Your task to perform on an android device: turn notification dots off Image 0: 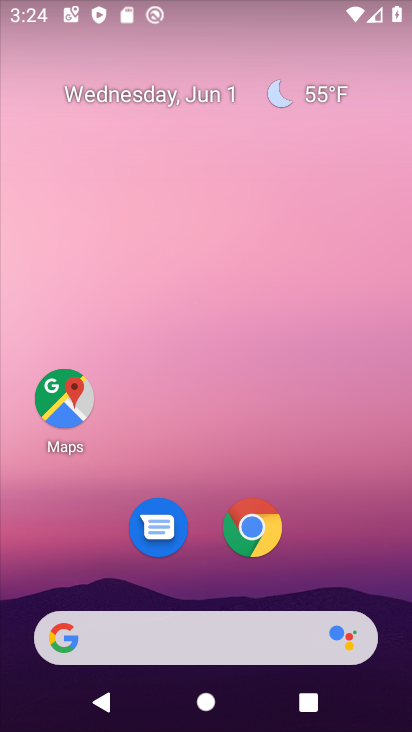
Step 0: press home button
Your task to perform on an android device: turn notification dots off Image 1: 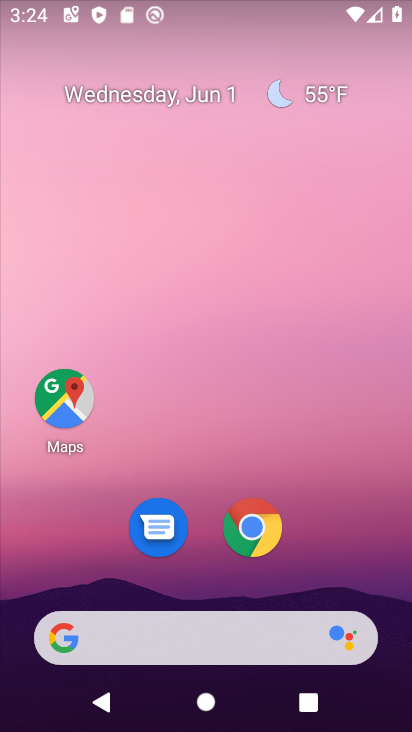
Step 1: drag from (298, 580) to (321, 40)
Your task to perform on an android device: turn notification dots off Image 2: 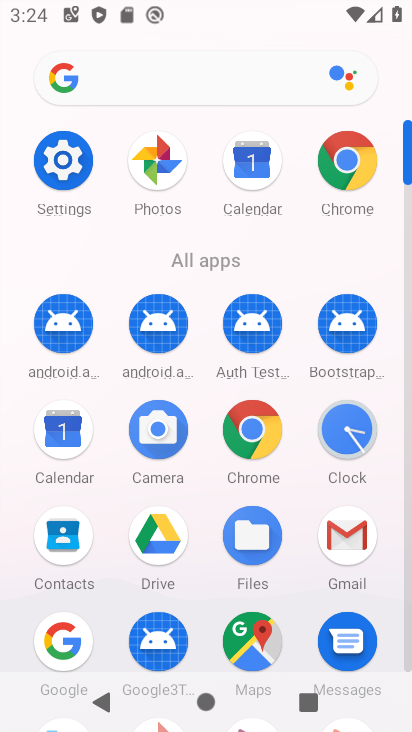
Step 2: click (62, 165)
Your task to perform on an android device: turn notification dots off Image 3: 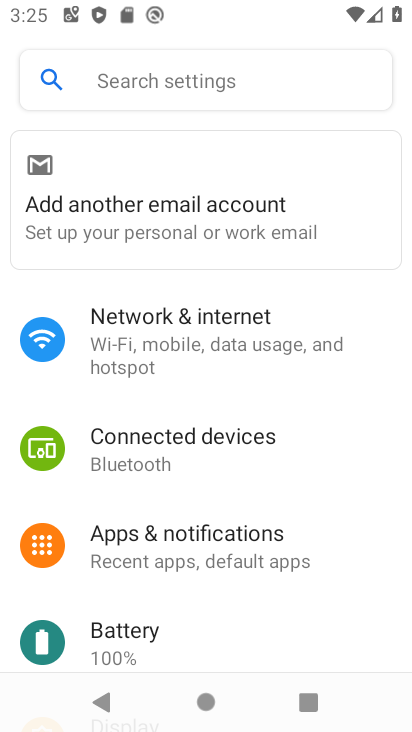
Step 3: drag from (154, 587) to (112, 318)
Your task to perform on an android device: turn notification dots off Image 4: 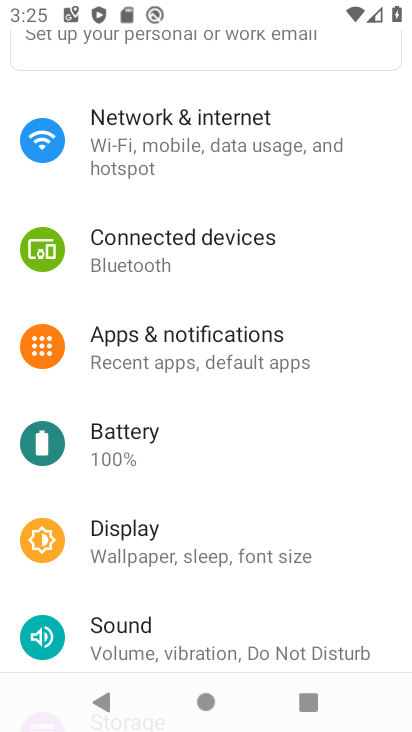
Step 4: click (122, 345)
Your task to perform on an android device: turn notification dots off Image 5: 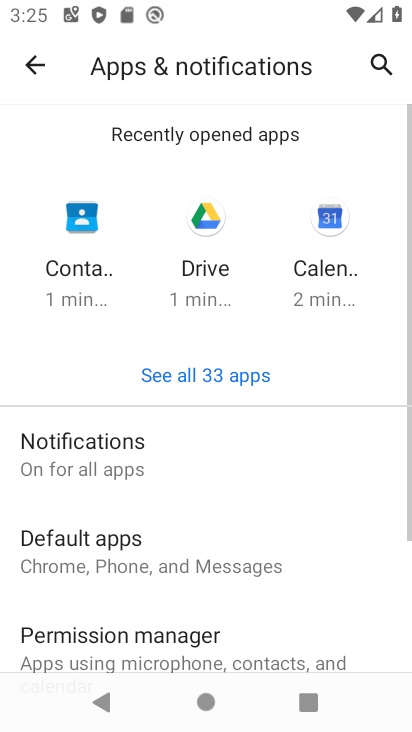
Step 5: click (106, 441)
Your task to perform on an android device: turn notification dots off Image 6: 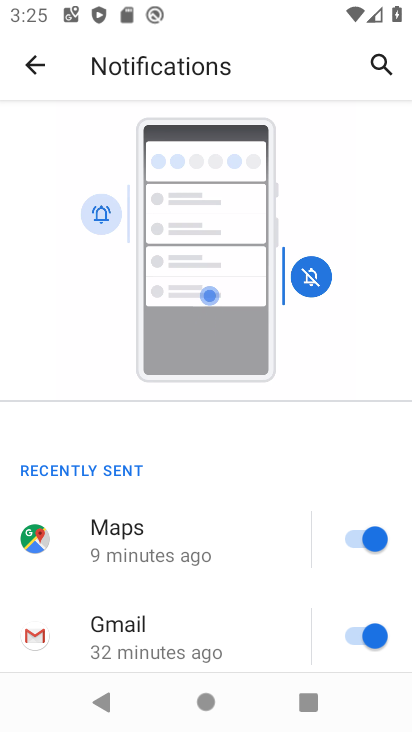
Step 6: drag from (176, 556) to (251, 171)
Your task to perform on an android device: turn notification dots off Image 7: 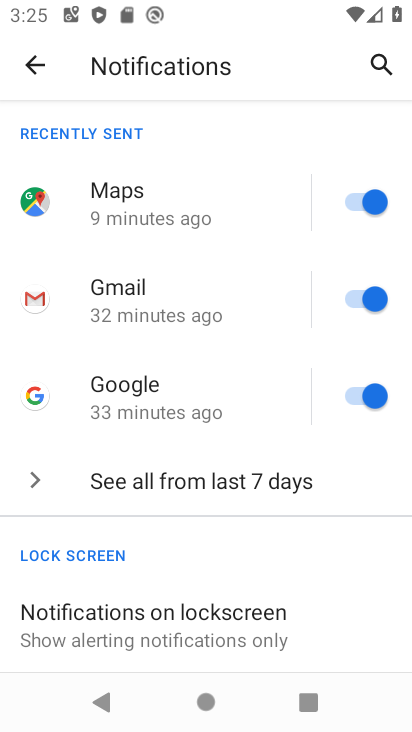
Step 7: drag from (173, 597) to (192, 482)
Your task to perform on an android device: turn notification dots off Image 8: 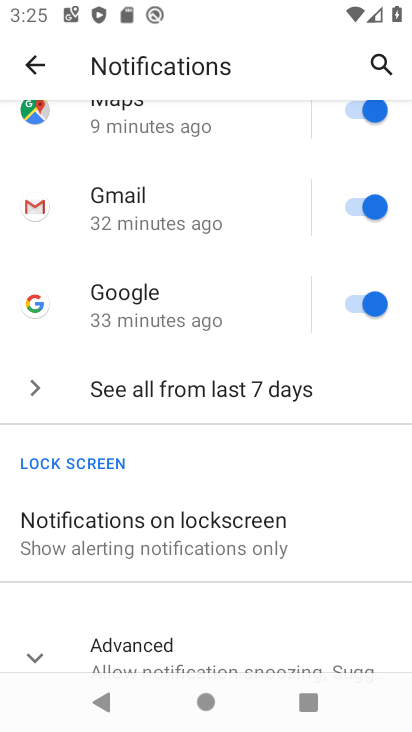
Step 8: click (167, 527)
Your task to perform on an android device: turn notification dots off Image 9: 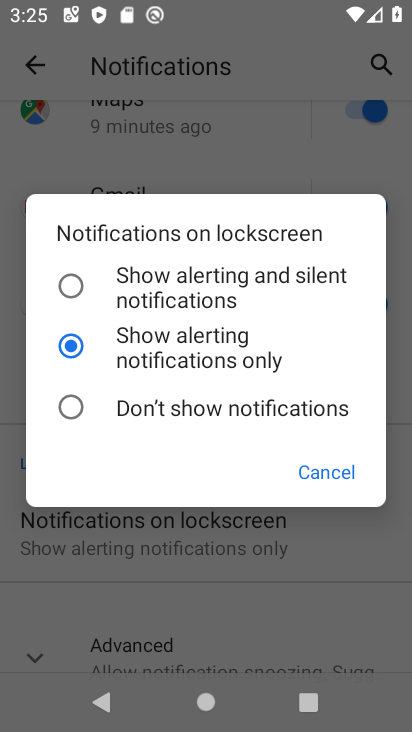
Step 9: click (184, 539)
Your task to perform on an android device: turn notification dots off Image 10: 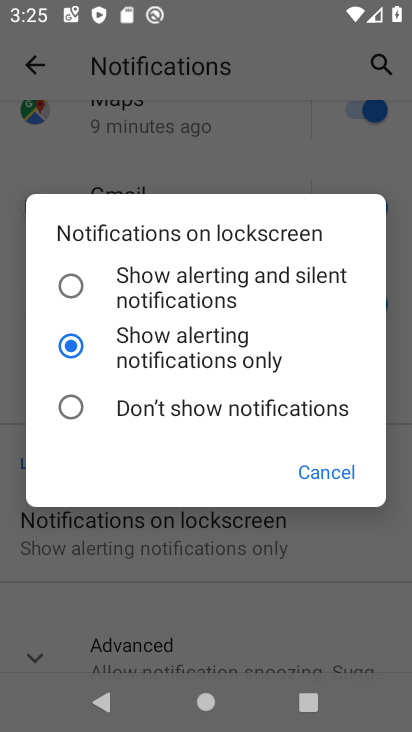
Step 10: click (189, 643)
Your task to perform on an android device: turn notification dots off Image 11: 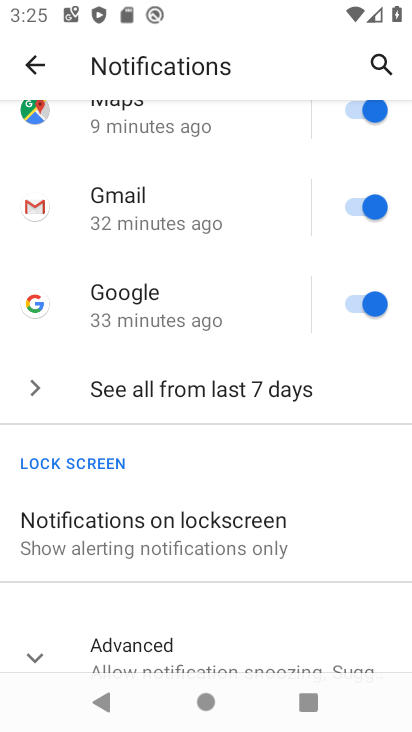
Step 11: drag from (270, 591) to (334, 330)
Your task to perform on an android device: turn notification dots off Image 12: 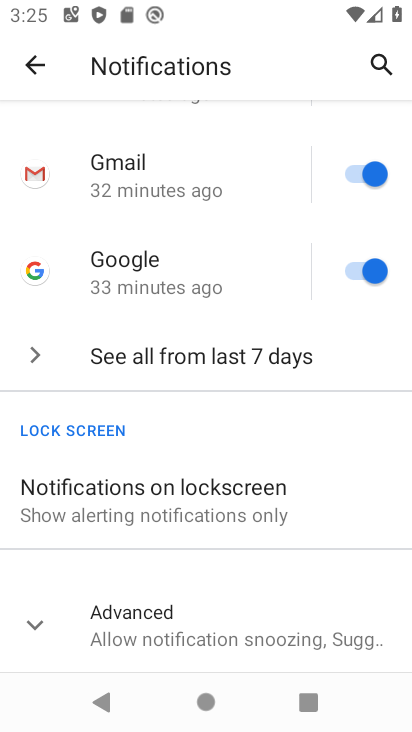
Step 12: click (229, 635)
Your task to perform on an android device: turn notification dots off Image 13: 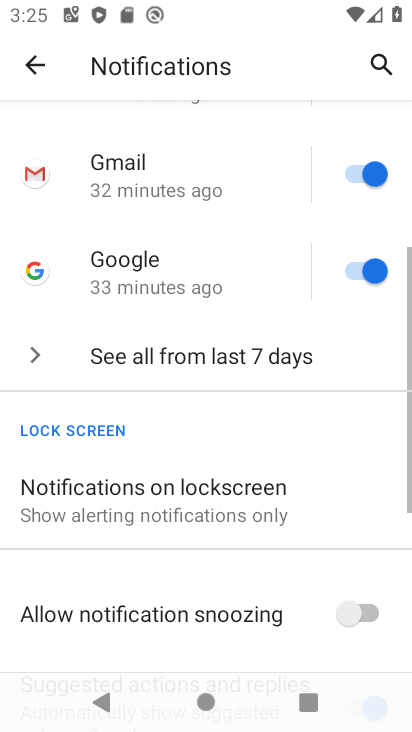
Step 13: drag from (229, 635) to (255, 174)
Your task to perform on an android device: turn notification dots off Image 14: 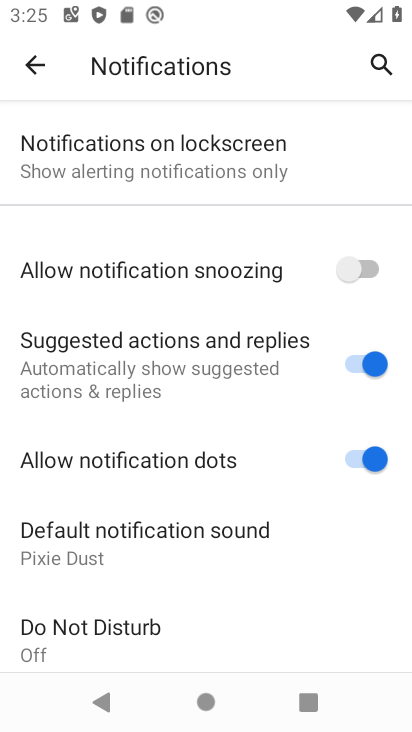
Step 14: click (207, 463)
Your task to perform on an android device: turn notification dots off Image 15: 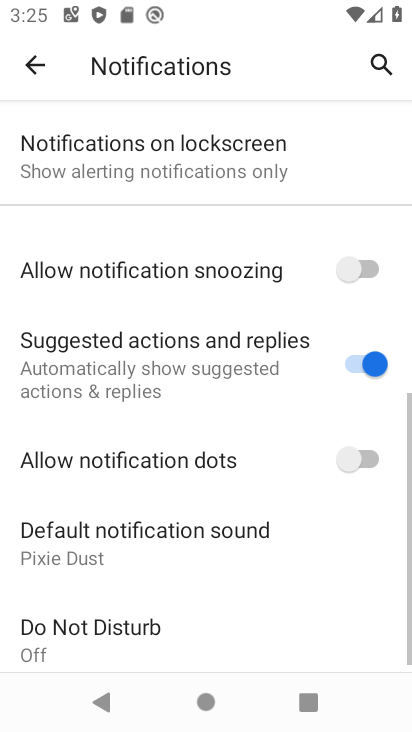
Step 15: task complete